Your task to perform on an android device: uninstall "Messages" Image 0: 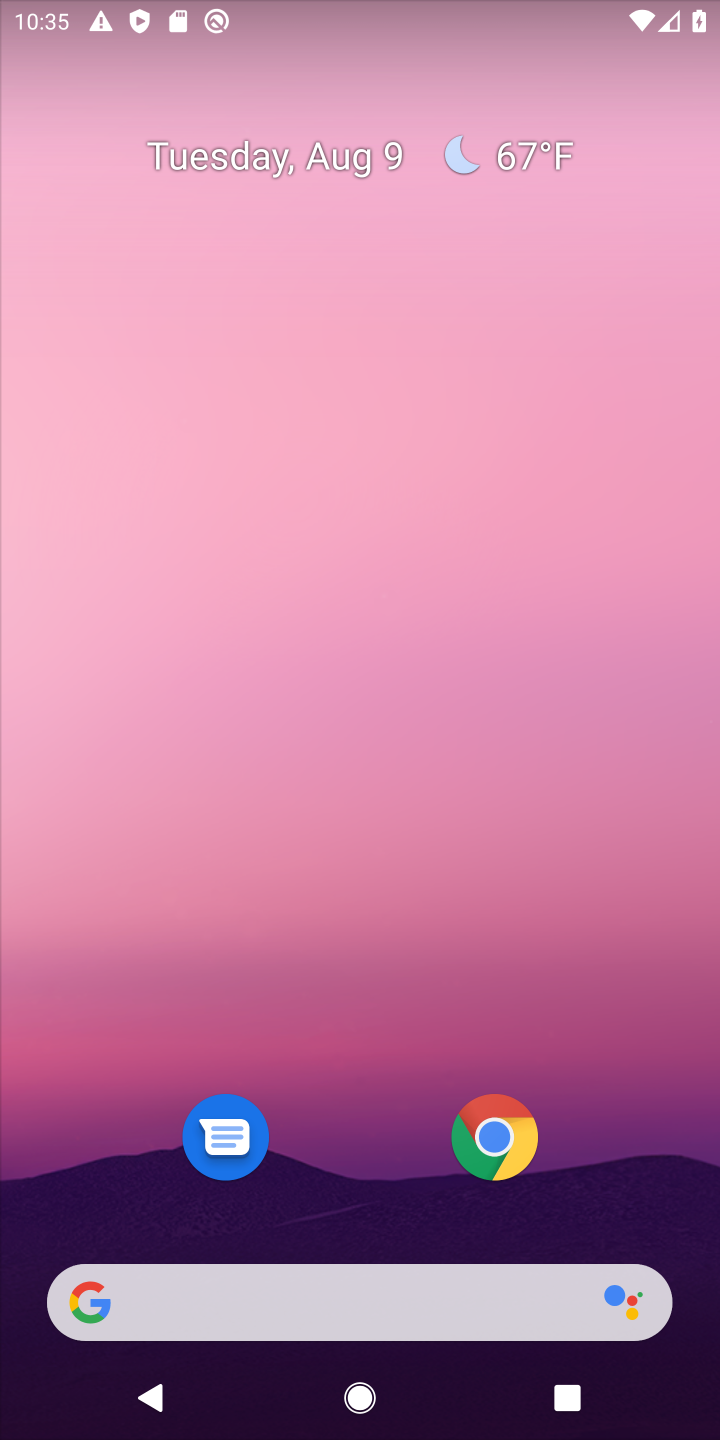
Step 0: drag from (513, 848) to (358, 106)
Your task to perform on an android device: uninstall "Messages" Image 1: 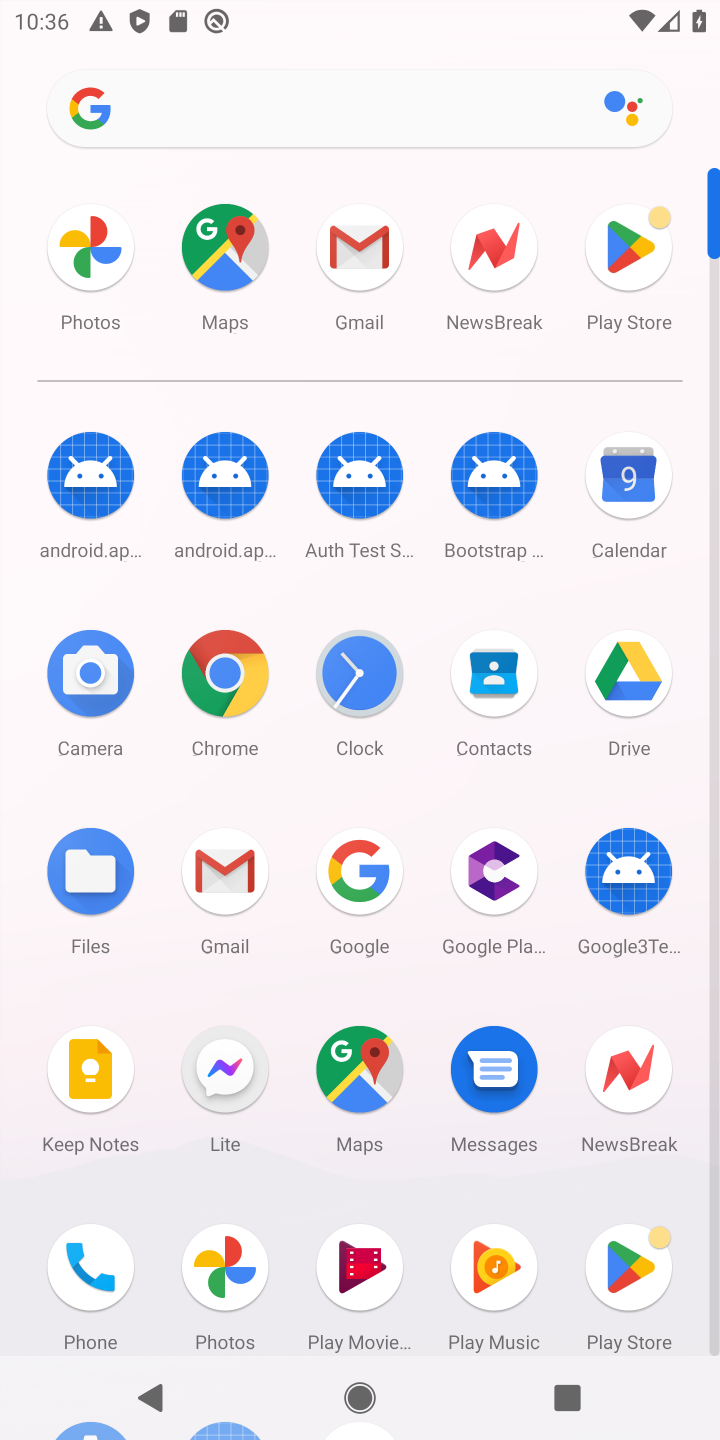
Step 1: click (623, 256)
Your task to perform on an android device: uninstall "Messages" Image 2: 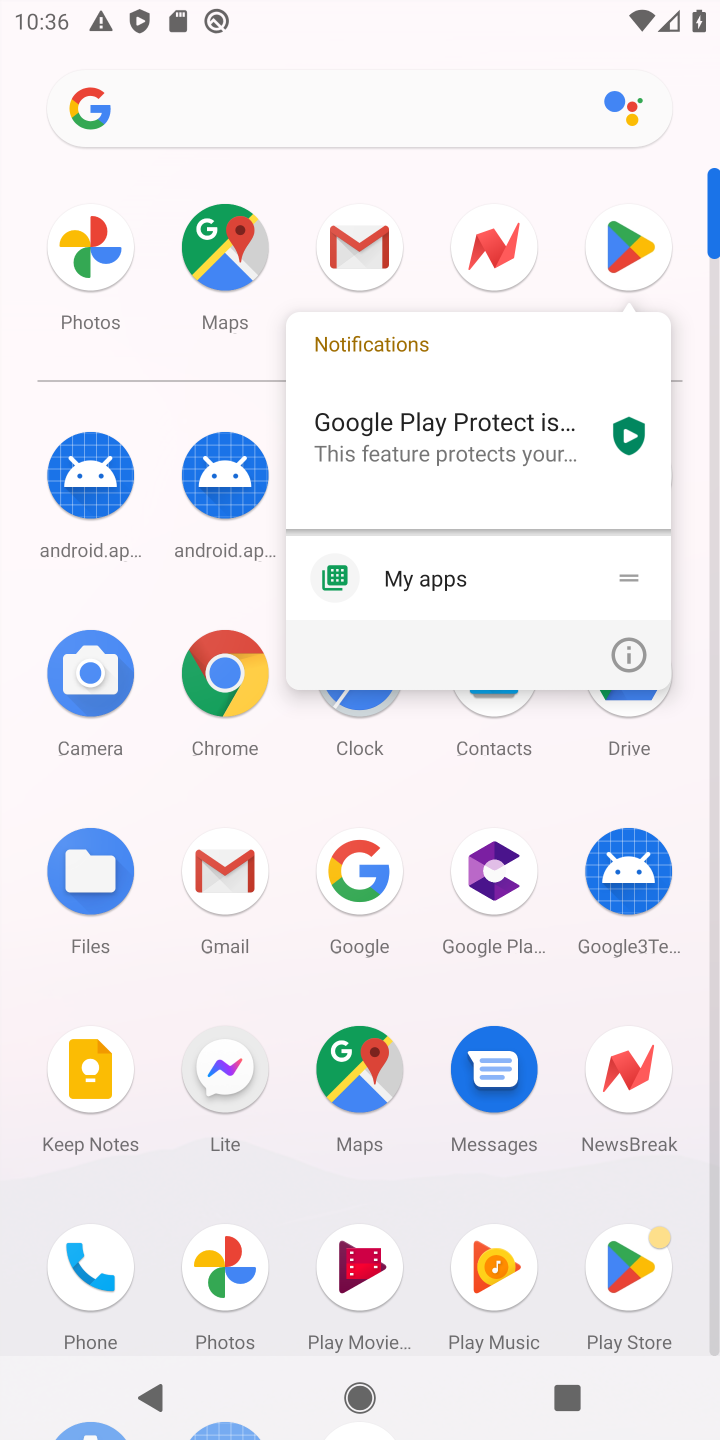
Step 2: click (623, 257)
Your task to perform on an android device: uninstall "Messages" Image 3: 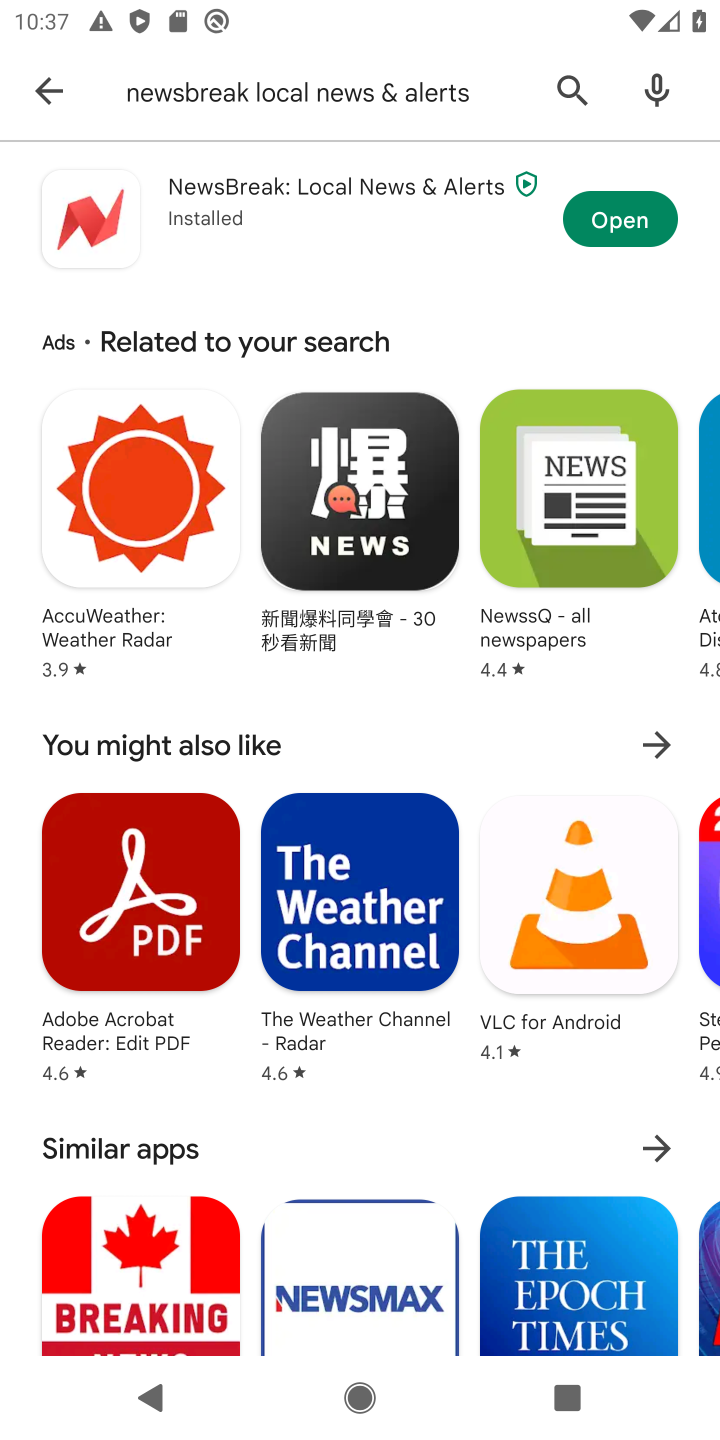
Step 3: press back button
Your task to perform on an android device: uninstall "Messages" Image 4: 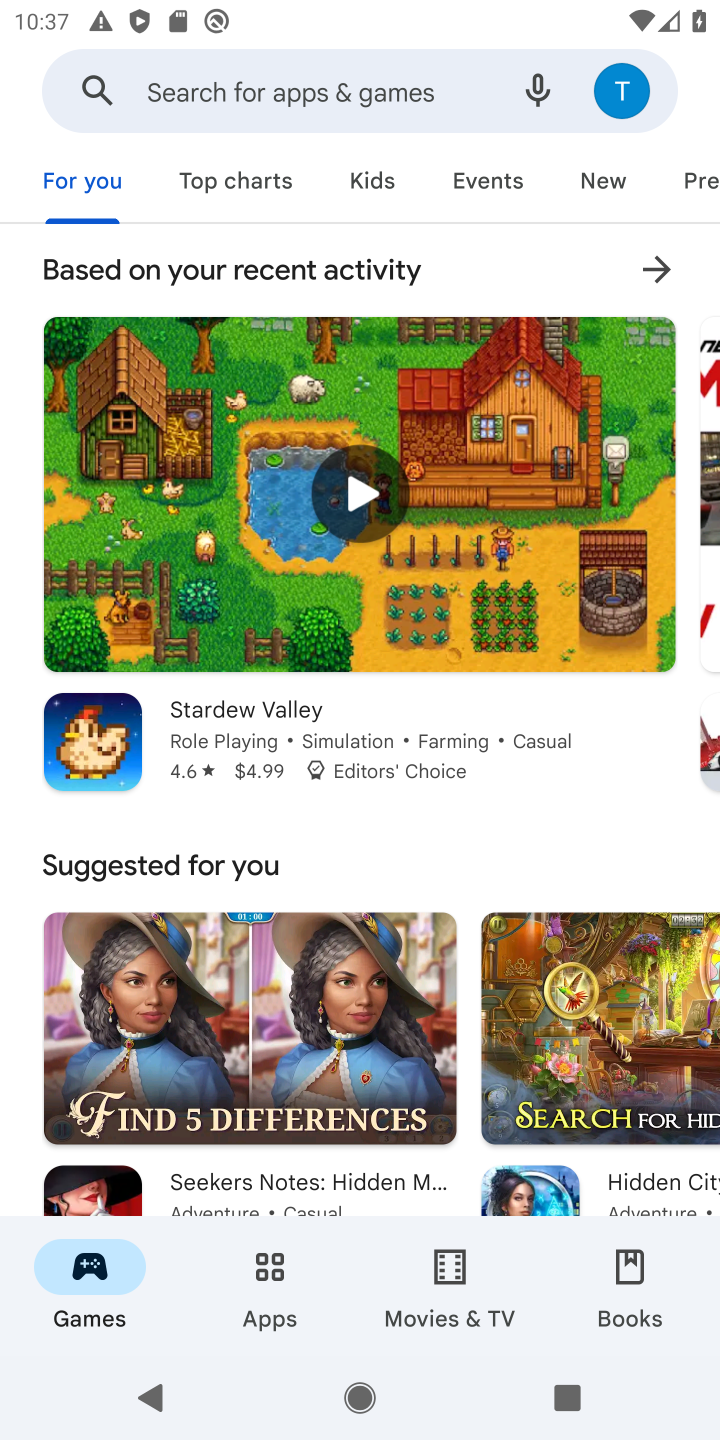
Step 4: click (327, 71)
Your task to perform on an android device: uninstall "Messages" Image 5: 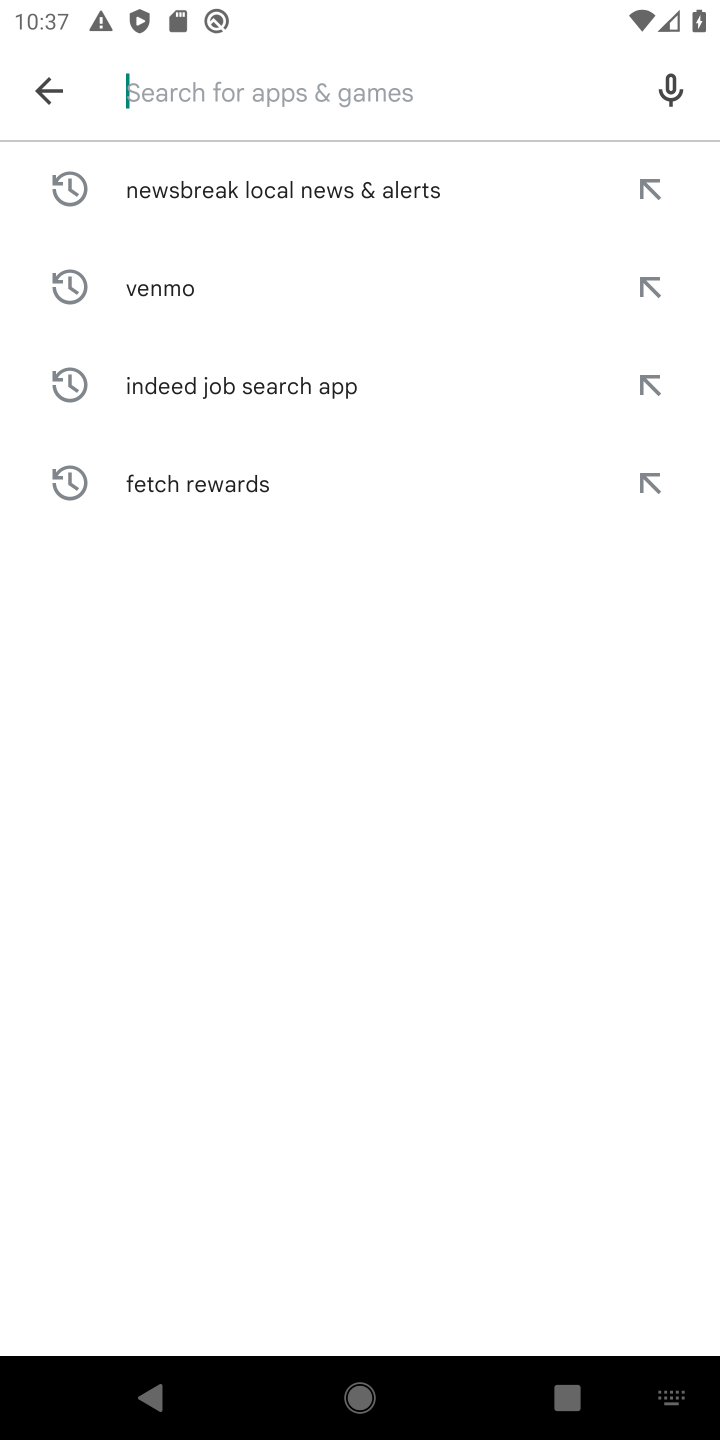
Step 5: type "Messages"
Your task to perform on an android device: uninstall "Messages" Image 6: 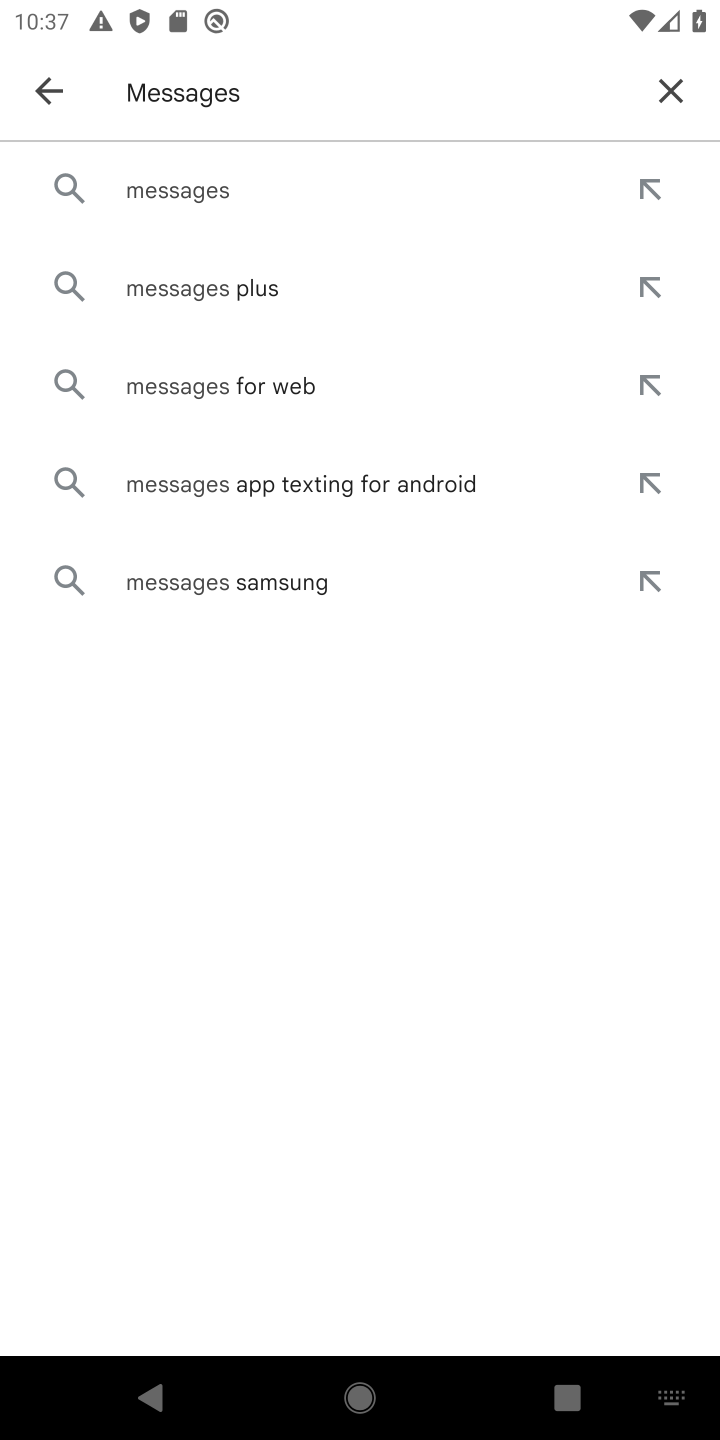
Step 6: click (197, 184)
Your task to perform on an android device: uninstall "Messages" Image 7: 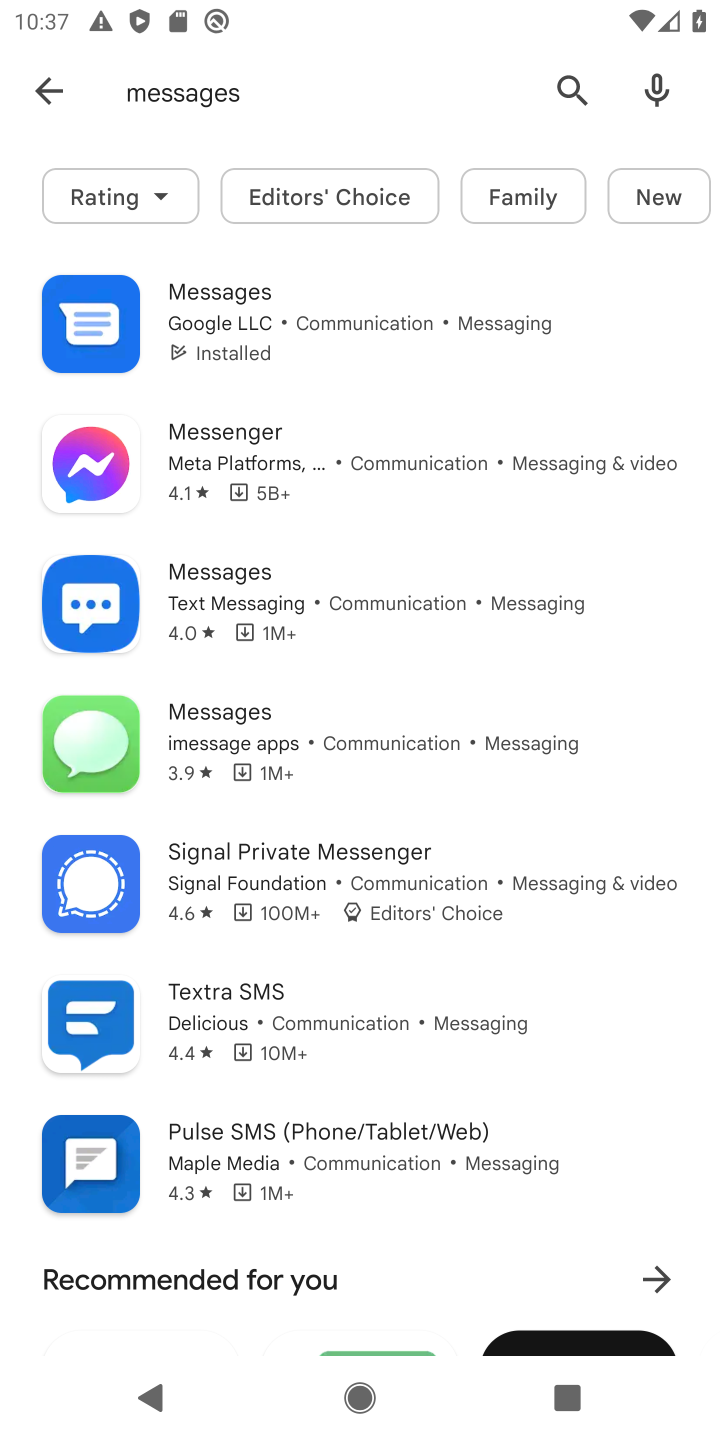
Step 7: click (335, 344)
Your task to perform on an android device: uninstall "Messages" Image 8: 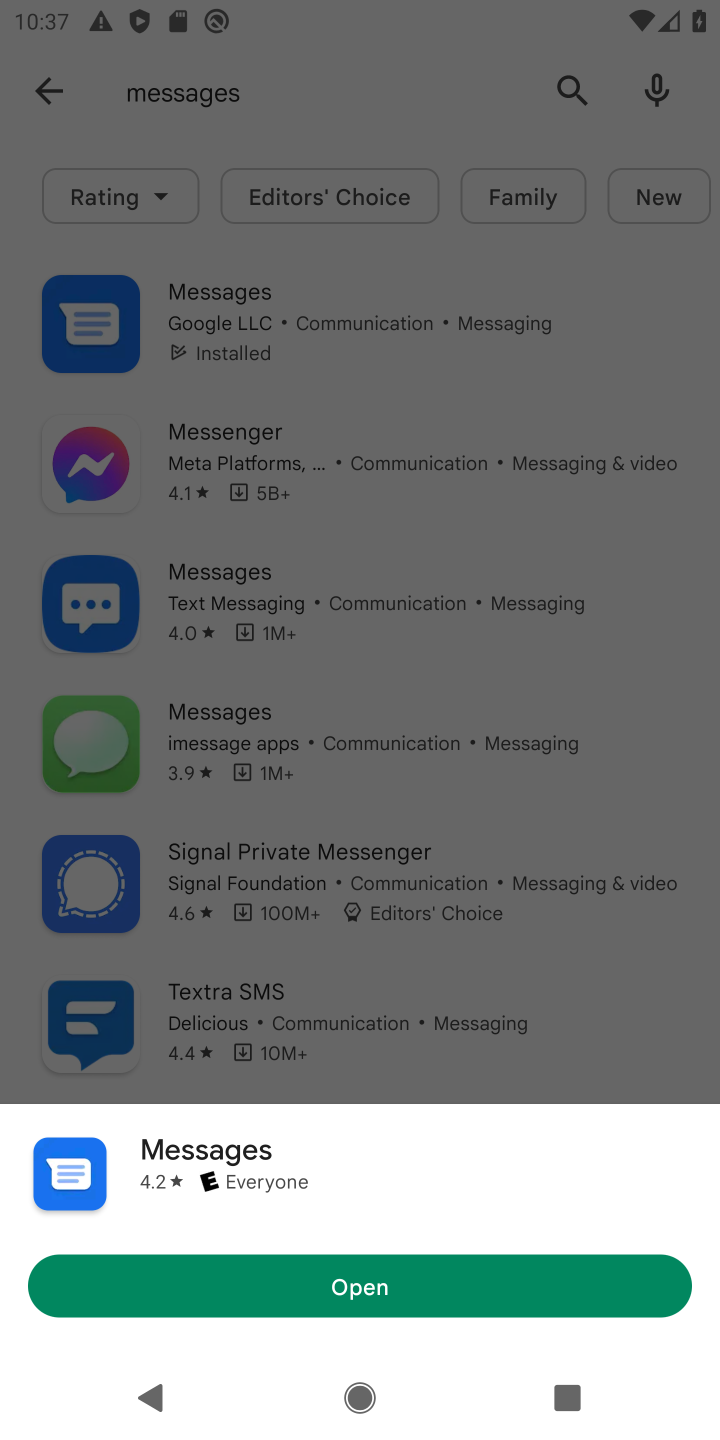
Step 8: click (276, 1293)
Your task to perform on an android device: uninstall "Messages" Image 9: 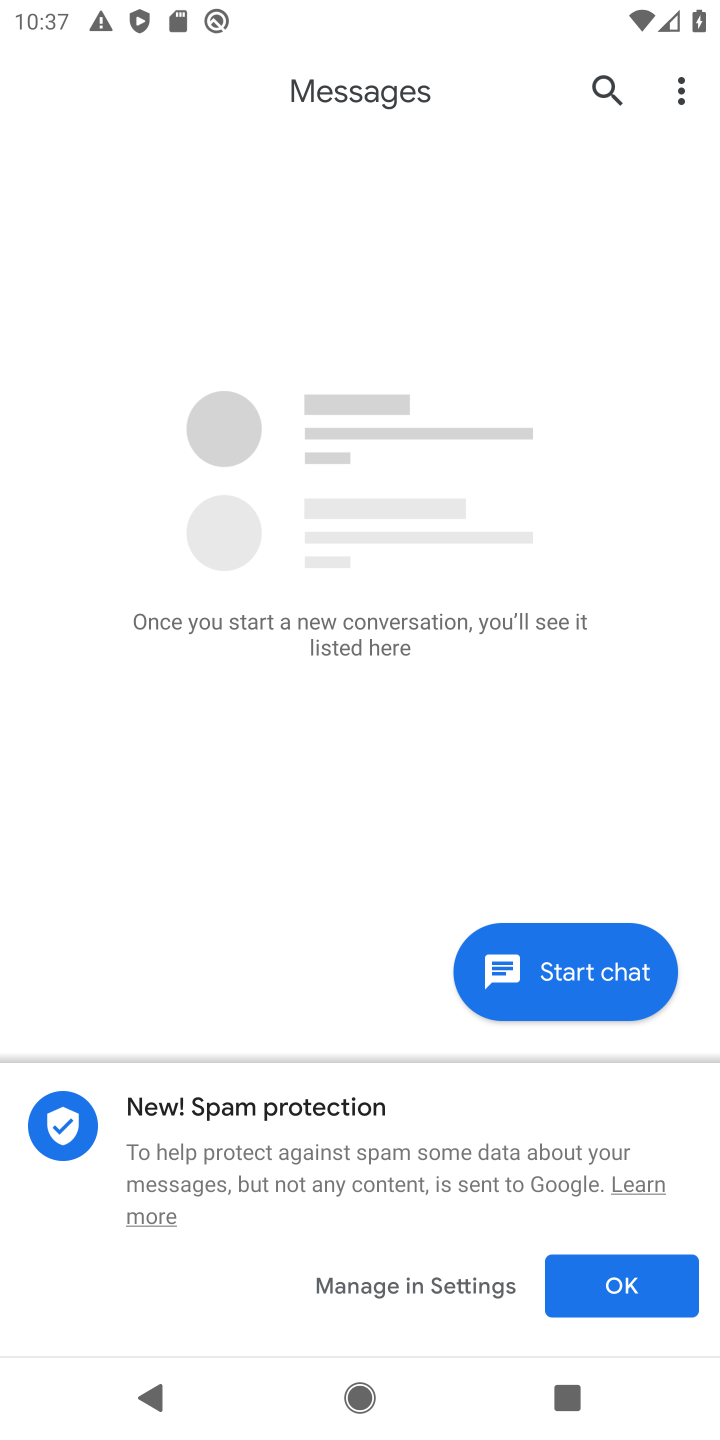
Step 9: task complete